Your task to perform on an android device: Turn off the flashlight Image 0: 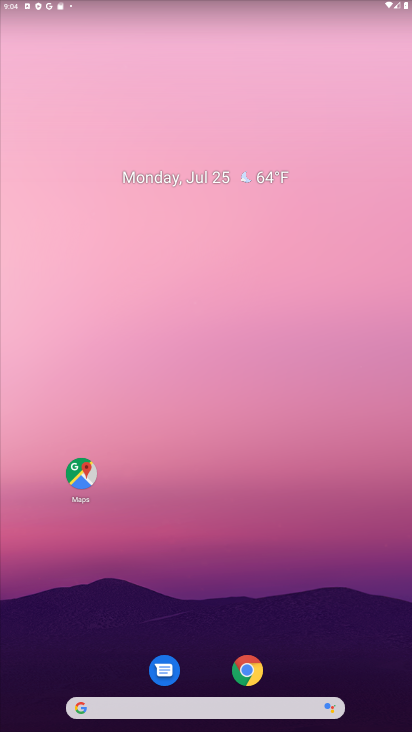
Step 0: drag from (342, 641) to (146, 83)
Your task to perform on an android device: Turn off the flashlight Image 1: 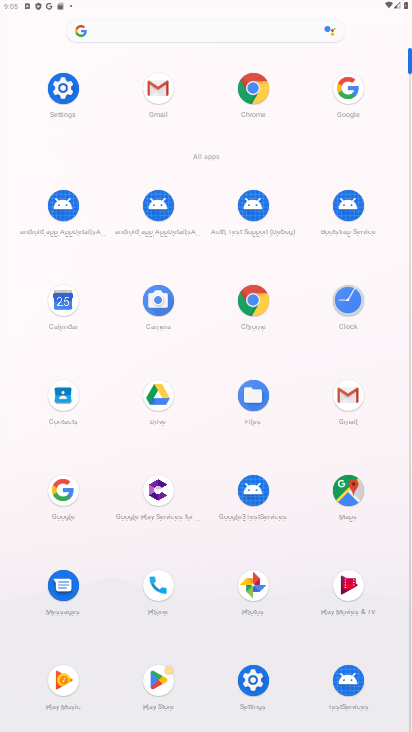
Step 1: click (253, 669)
Your task to perform on an android device: Turn off the flashlight Image 2: 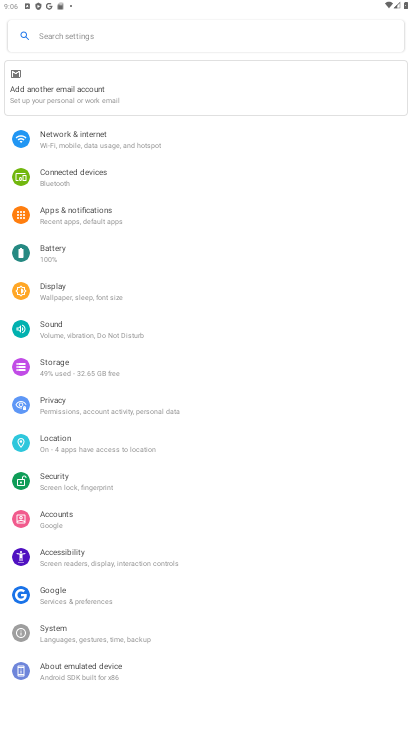
Step 2: task complete